Your task to perform on an android device: Open maps Image 0: 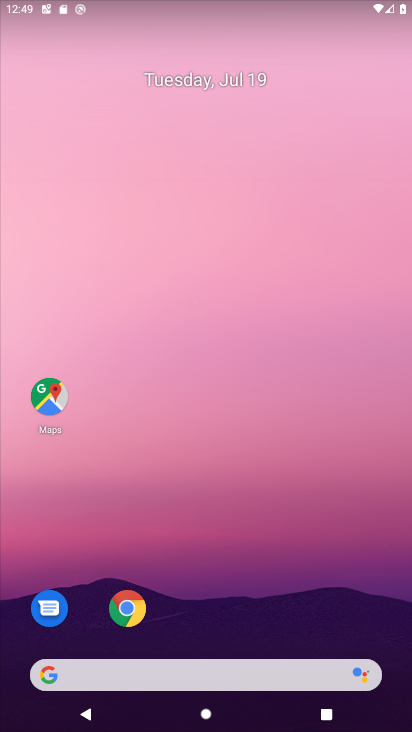
Step 0: drag from (259, 592) to (264, 22)
Your task to perform on an android device: Open maps Image 1: 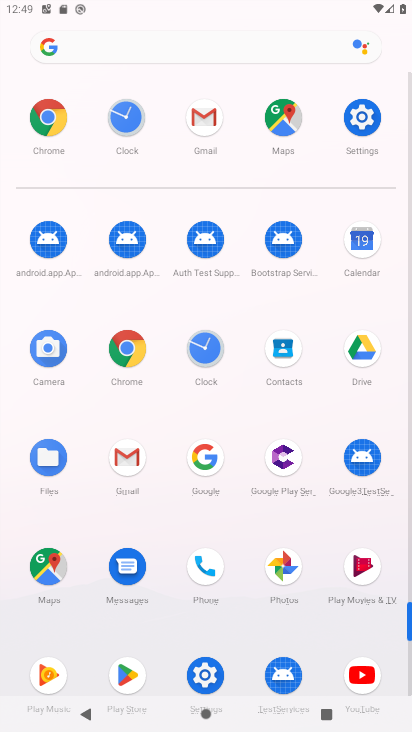
Step 1: click (44, 581)
Your task to perform on an android device: Open maps Image 2: 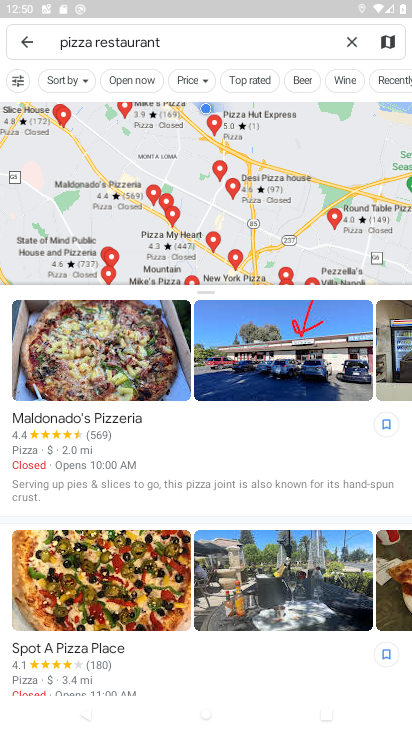
Step 2: task complete